Your task to perform on an android device: What's the weather today? Image 0: 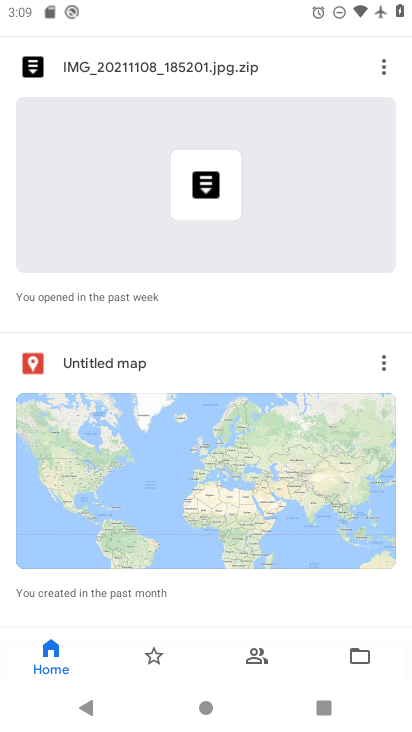
Step 0: press home button
Your task to perform on an android device: What's the weather today? Image 1: 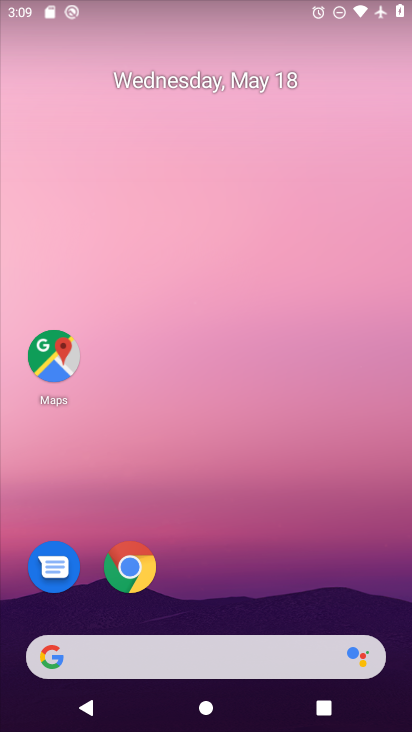
Step 1: click (128, 568)
Your task to perform on an android device: What's the weather today? Image 2: 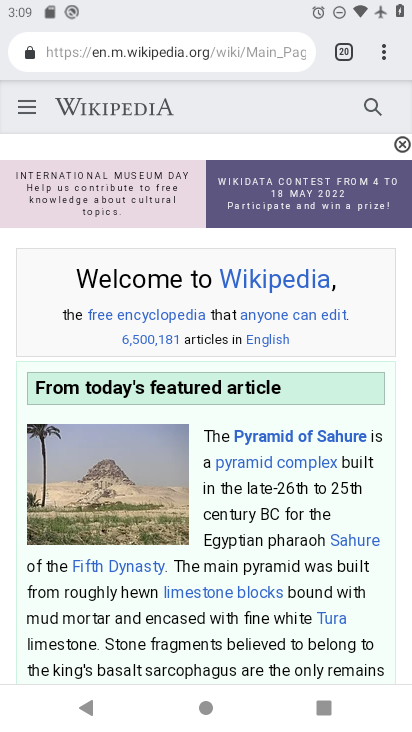
Step 2: click (376, 50)
Your task to perform on an android device: What's the weather today? Image 3: 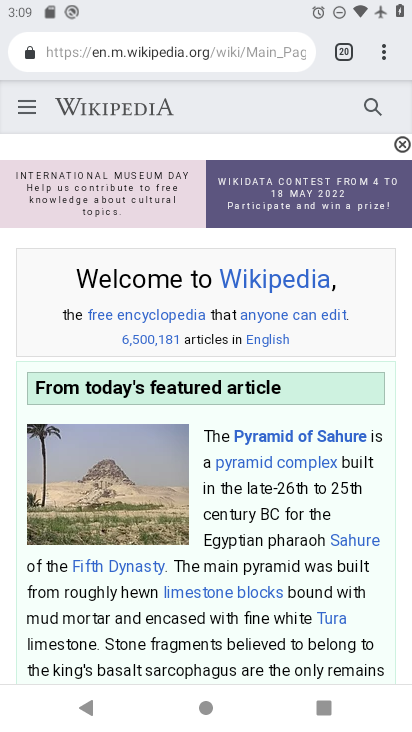
Step 3: click (382, 48)
Your task to perform on an android device: What's the weather today? Image 4: 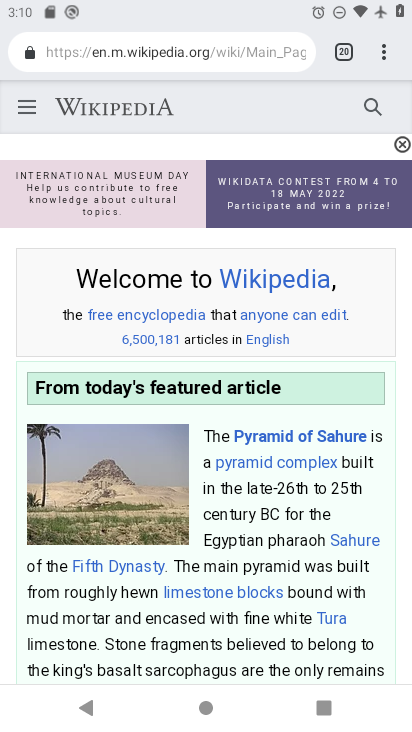
Step 4: click (371, 47)
Your task to perform on an android device: What's the weather today? Image 5: 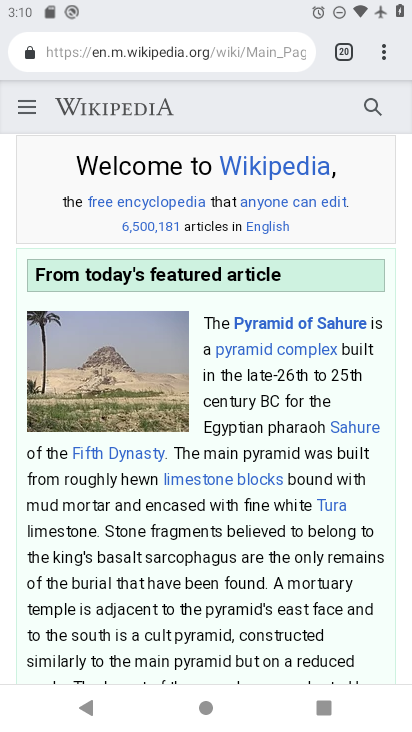
Step 5: click (372, 42)
Your task to perform on an android device: What's the weather today? Image 6: 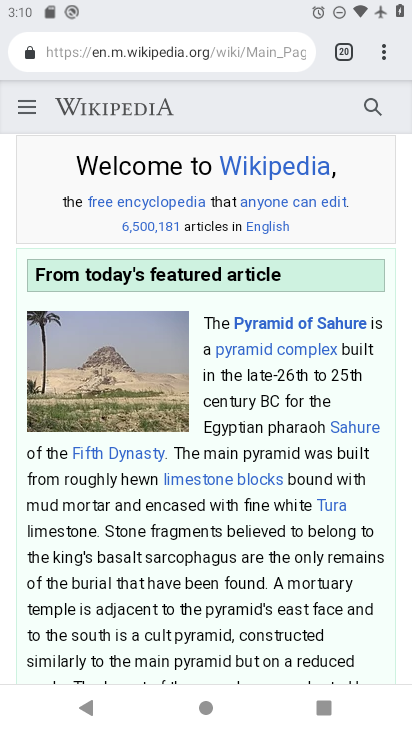
Step 6: click (381, 51)
Your task to perform on an android device: What's the weather today? Image 7: 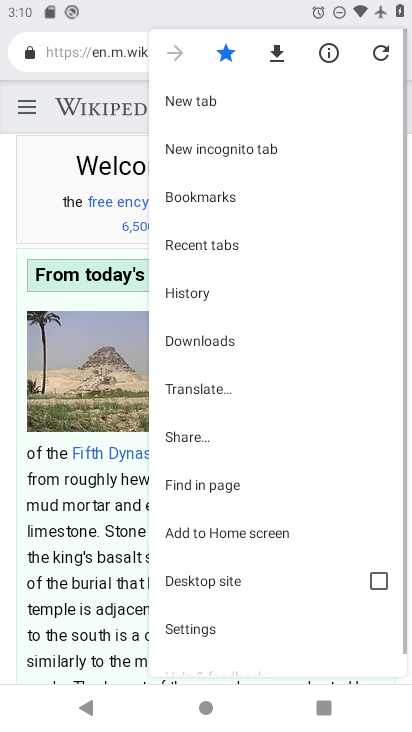
Step 7: click (214, 104)
Your task to perform on an android device: What's the weather today? Image 8: 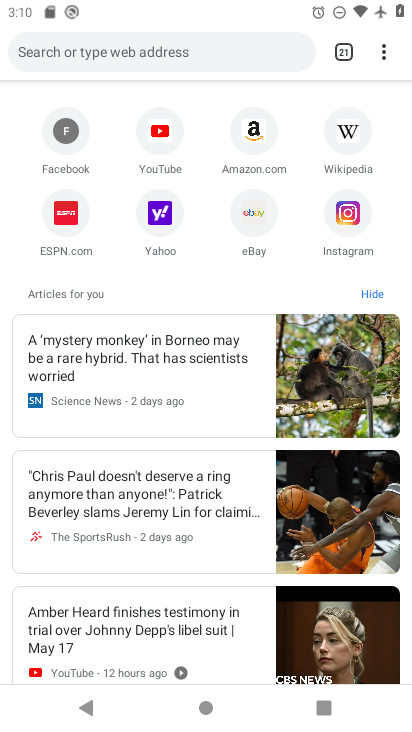
Step 8: click (115, 46)
Your task to perform on an android device: What's the weather today? Image 9: 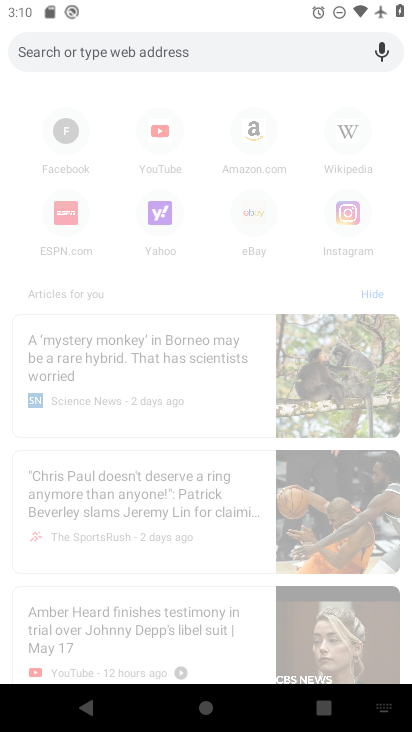
Step 9: type "Is it going to rain this weekend?"
Your task to perform on an android device: What's the weather today? Image 10: 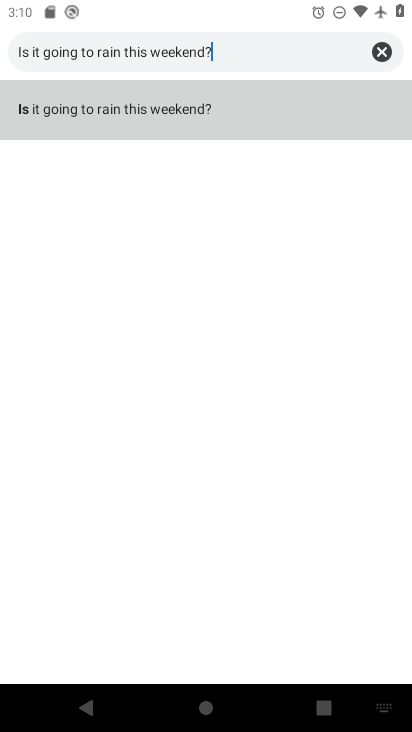
Step 10: click (220, 102)
Your task to perform on an android device: What's the weather today? Image 11: 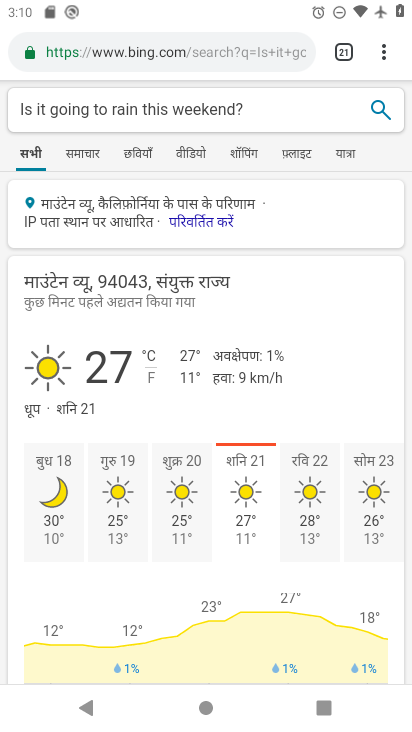
Step 11: task complete